Your task to perform on an android device: turn off priority inbox in the gmail app Image 0: 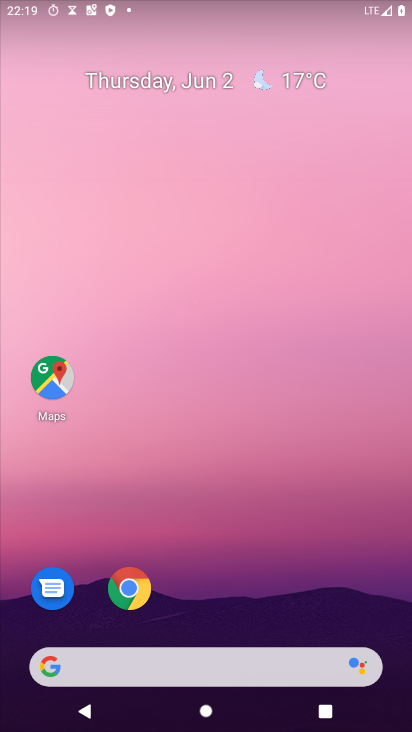
Step 0: drag from (196, 602) to (209, 191)
Your task to perform on an android device: turn off priority inbox in the gmail app Image 1: 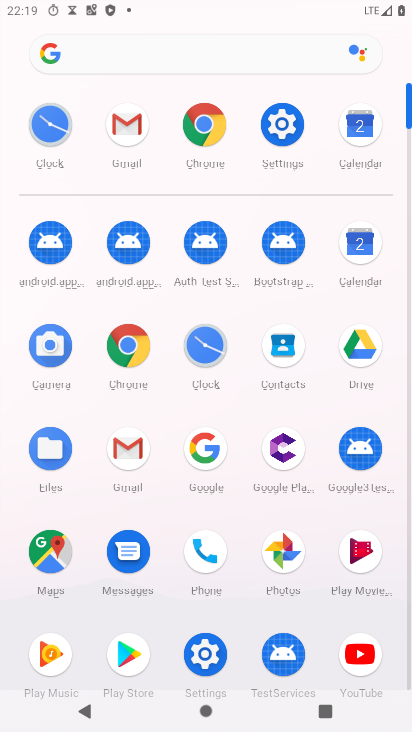
Step 1: click (120, 448)
Your task to perform on an android device: turn off priority inbox in the gmail app Image 2: 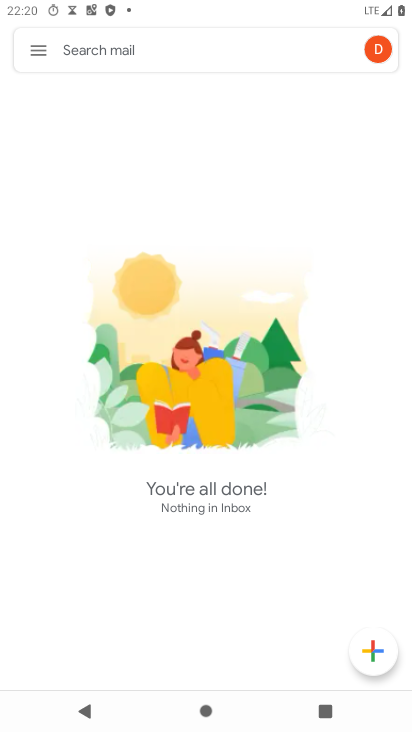
Step 2: click (35, 42)
Your task to perform on an android device: turn off priority inbox in the gmail app Image 3: 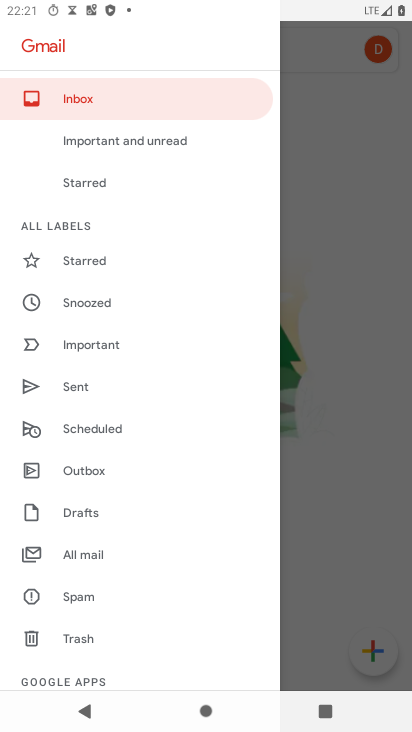
Step 3: drag from (145, 635) to (143, 144)
Your task to perform on an android device: turn off priority inbox in the gmail app Image 4: 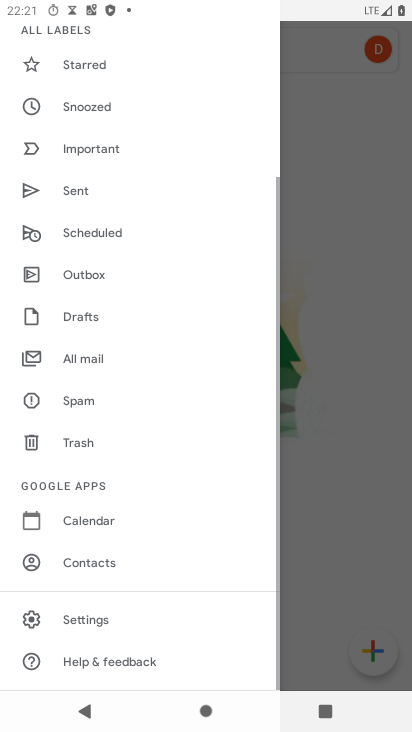
Step 4: click (112, 623)
Your task to perform on an android device: turn off priority inbox in the gmail app Image 5: 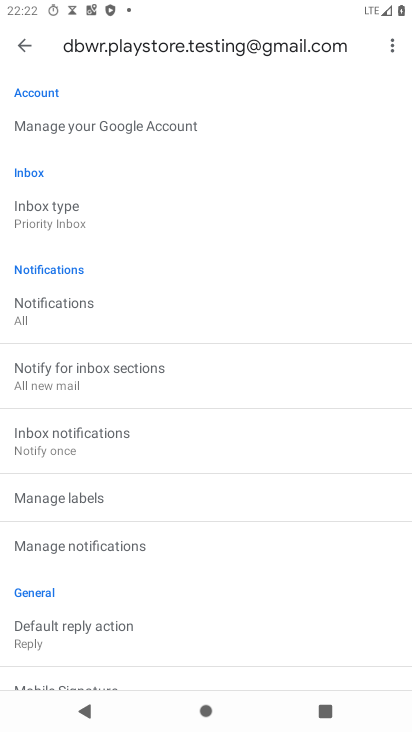
Step 5: drag from (87, 616) to (46, 645)
Your task to perform on an android device: turn off priority inbox in the gmail app Image 6: 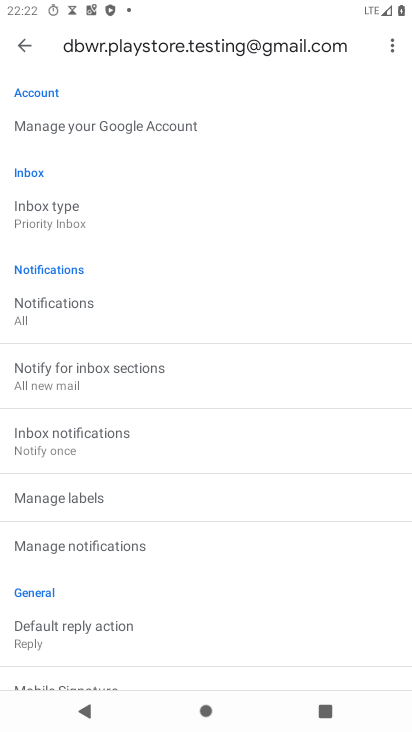
Step 6: click (56, 216)
Your task to perform on an android device: turn off priority inbox in the gmail app Image 7: 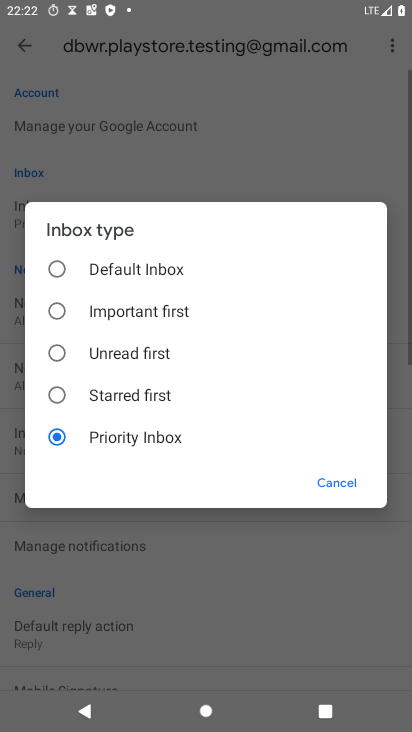
Step 7: click (79, 263)
Your task to perform on an android device: turn off priority inbox in the gmail app Image 8: 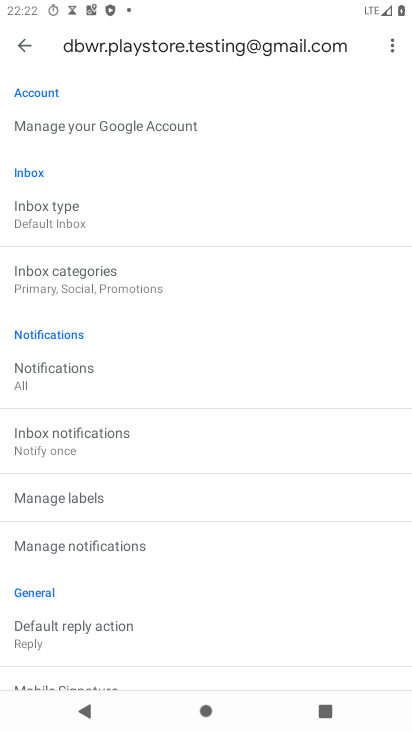
Step 8: task complete